Your task to perform on an android device: add a contact in the contacts app Image 0: 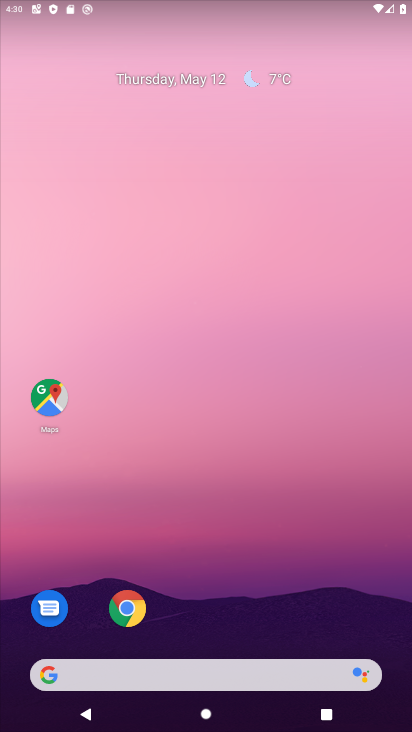
Step 0: drag from (196, 640) to (198, 11)
Your task to perform on an android device: add a contact in the contacts app Image 1: 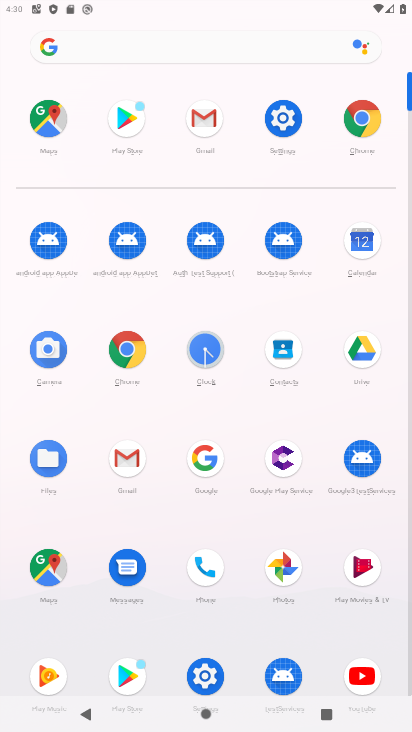
Step 1: click (283, 345)
Your task to perform on an android device: add a contact in the contacts app Image 2: 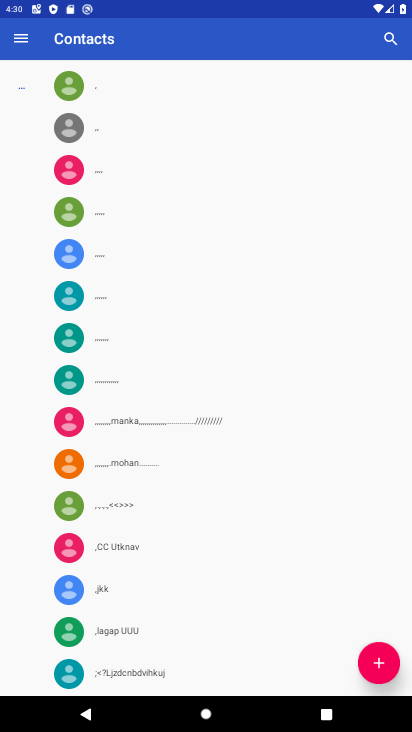
Step 2: click (387, 671)
Your task to perform on an android device: add a contact in the contacts app Image 3: 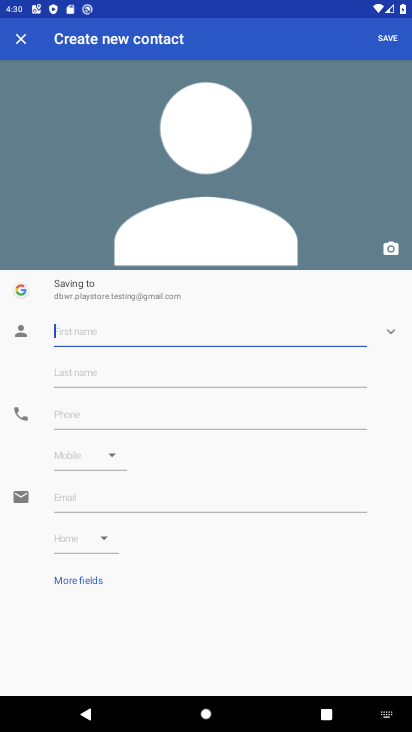
Step 3: type "hussy"
Your task to perform on an android device: add a contact in the contacts app Image 4: 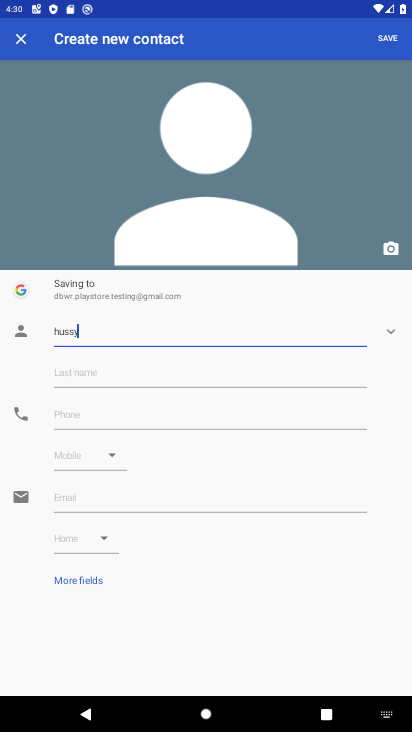
Step 4: click (86, 420)
Your task to perform on an android device: add a contact in the contacts app Image 5: 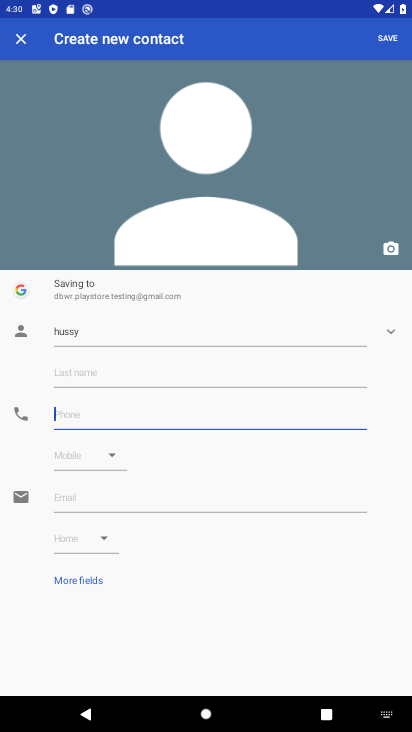
Step 5: type "8976543567"
Your task to perform on an android device: add a contact in the contacts app Image 6: 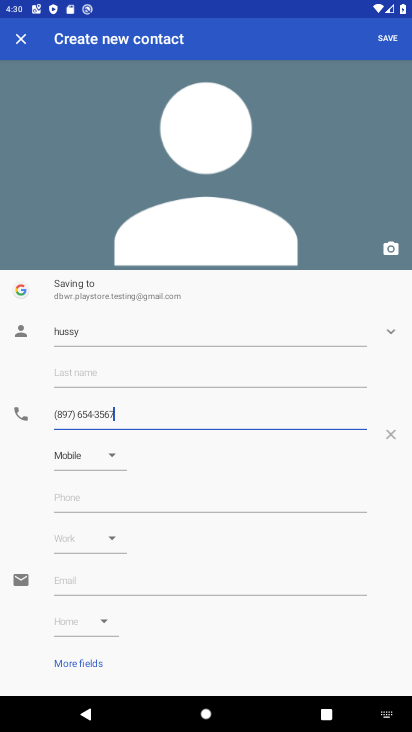
Step 6: click (399, 19)
Your task to perform on an android device: add a contact in the contacts app Image 7: 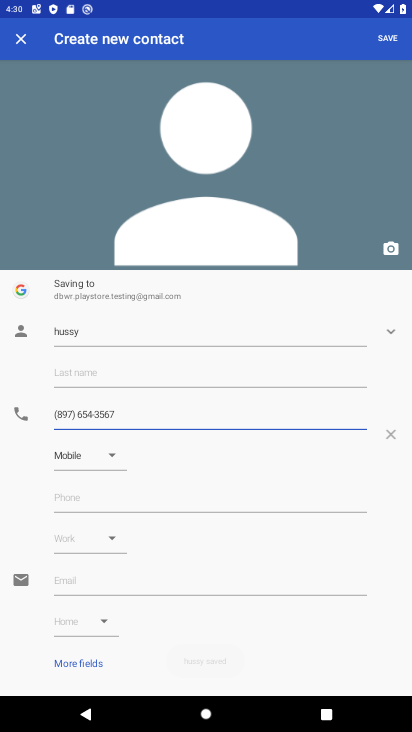
Step 7: click (390, 38)
Your task to perform on an android device: add a contact in the contacts app Image 8: 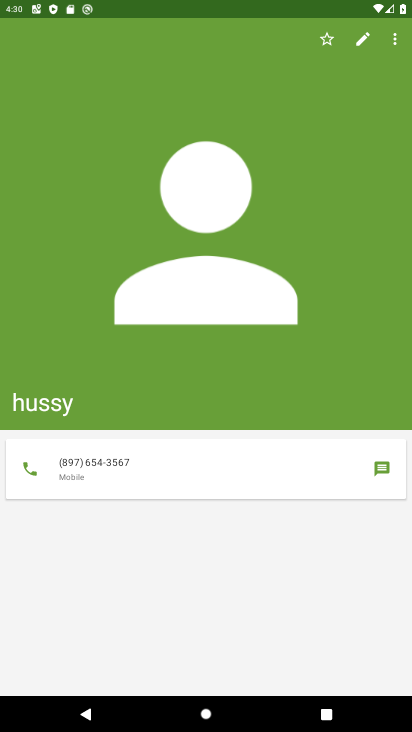
Step 8: task complete